Your task to perform on an android device: Show me popular games on the Play Store Image 0: 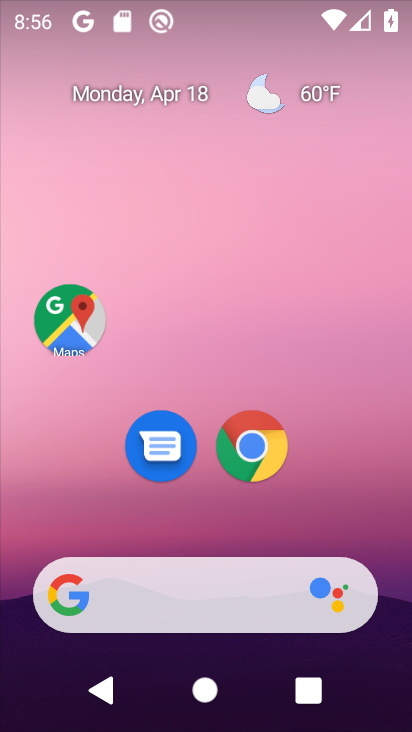
Step 0: drag from (355, 519) to (332, 85)
Your task to perform on an android device: Show me popular games on the Play Store Image 1: 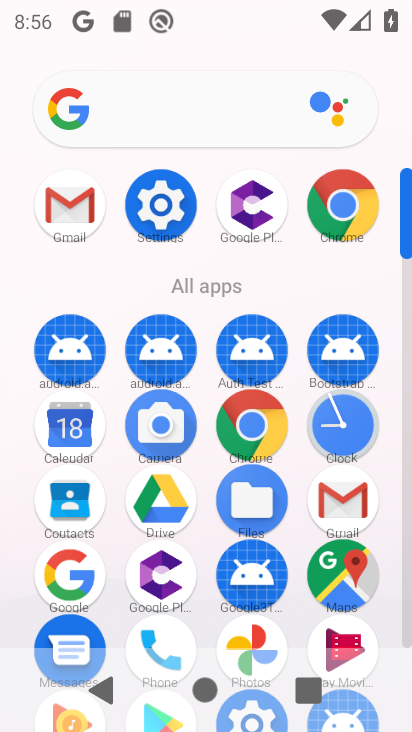
Step 1: drag from (391, 544) to (387, 315)
Your task to perform on an android device: Show me popular games on the Play Store Image 2: 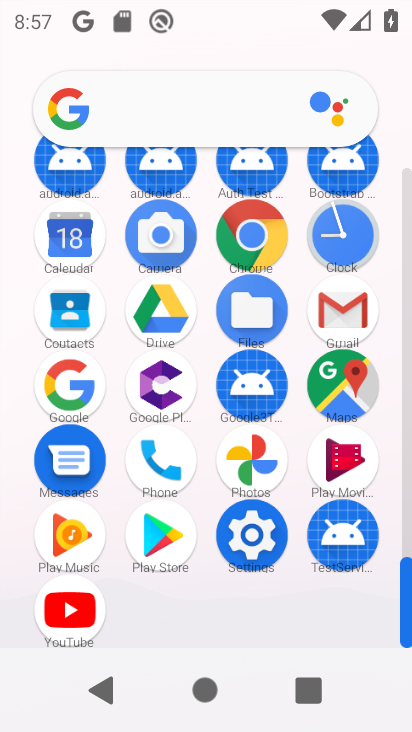
Step 2: click (156, 555)
Your task to perform on an android device: Show me popular games on the Play Store Image 3: 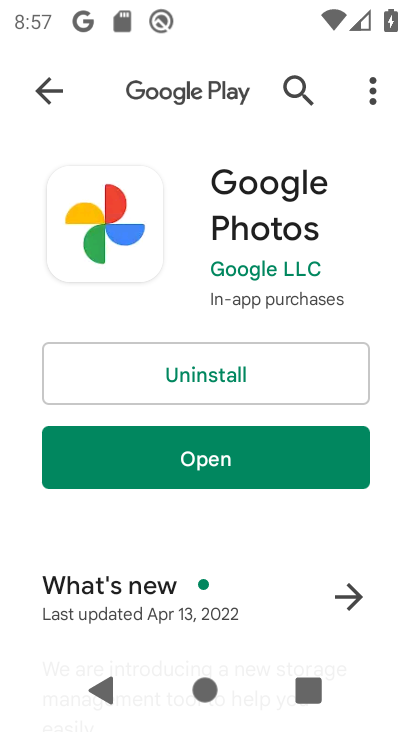
Step 3: press back button
Your task to perform on an android device: Show me popular games on the Play Store Image 4: 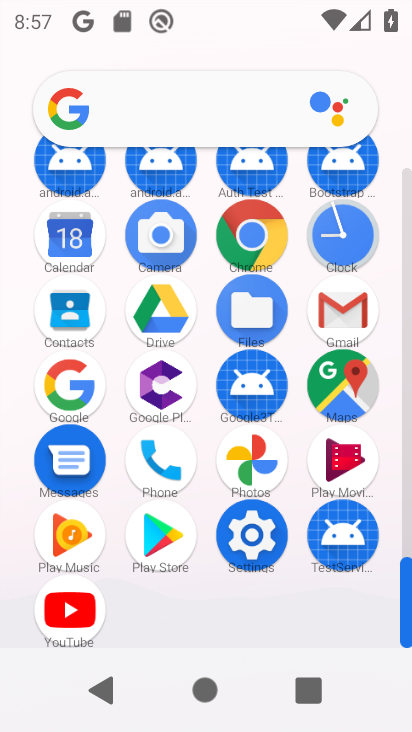
Step 4: click (161, 540)
Your task to perform on an android device: Show me popular games on the Play Store Image 5: 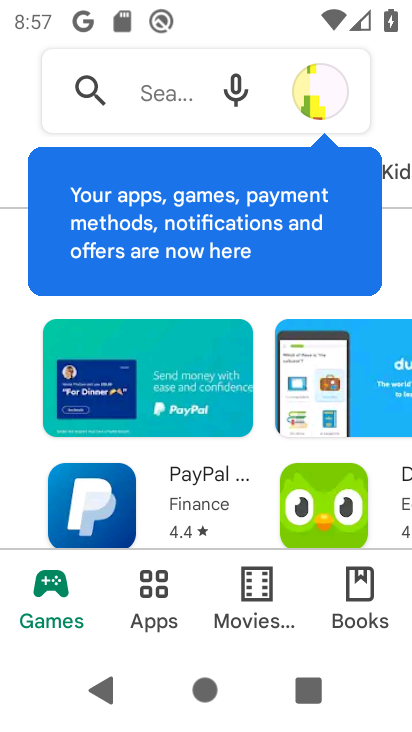
Step 5: click (51, 605)
Your task to perform on an android device: Show me popular games on the Play Store Image 6: 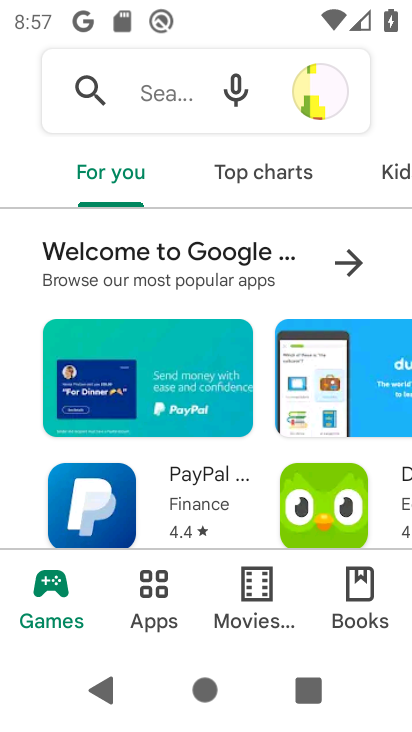
Step 6: task complete